Your task to perform on an android device: turn pop-ups off in chrome Image 0: 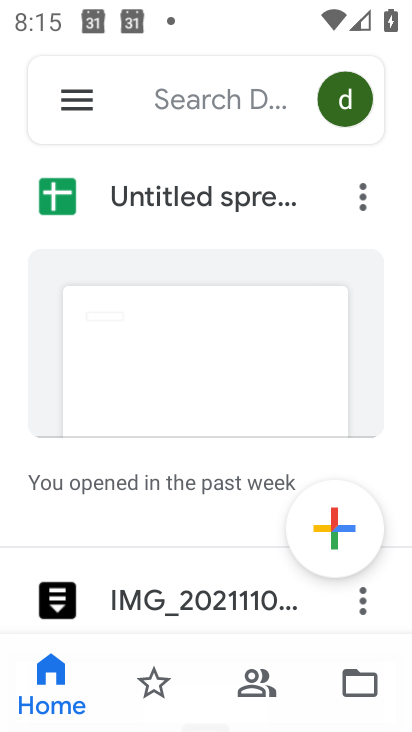
Step 0: task complete